Your task to perform on an android device: toggle airplane mode Image 0: 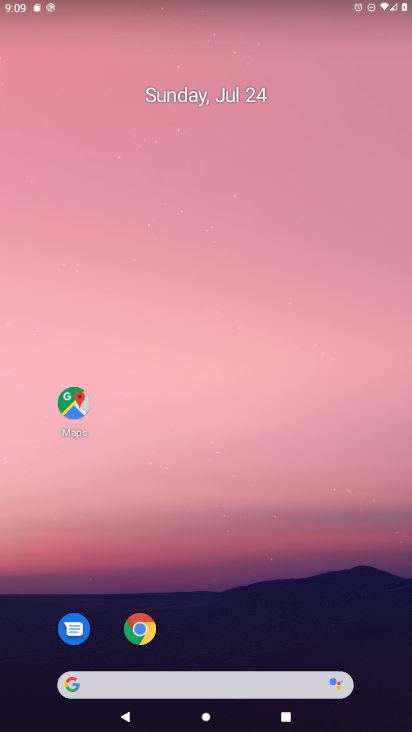
Step 0: drag from (313, 12) to (358, 485)
Your task to perform on an android device: toggle airplane mode Image 1: 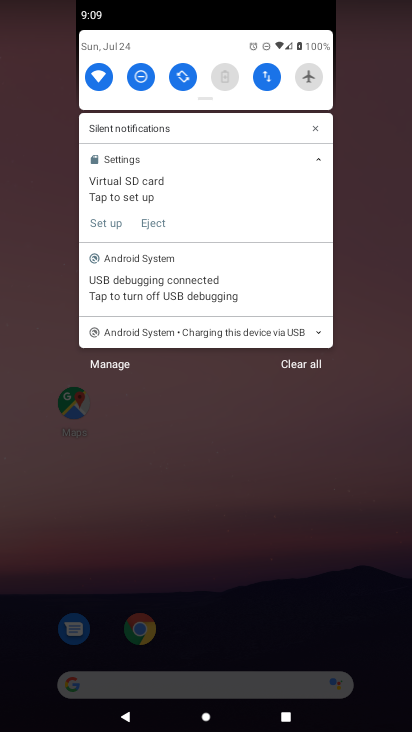
Step 1: click (307, 80)
Your task to perform on an android device: toggle airplane mode Image 2: 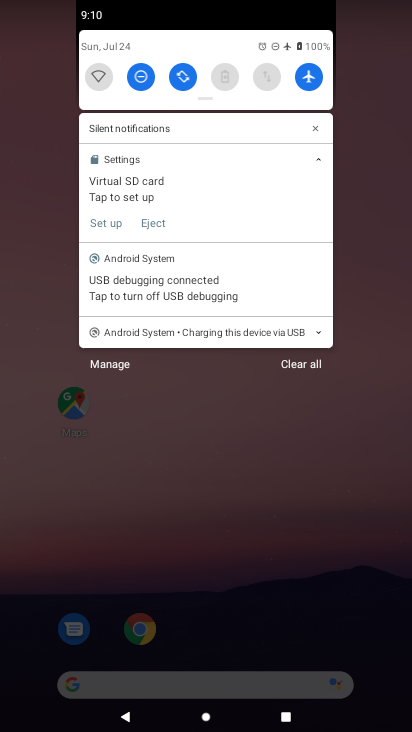
Step 2: task complete